Your task to perform on an android device: turn on the 12-hour format for clock Image 0: 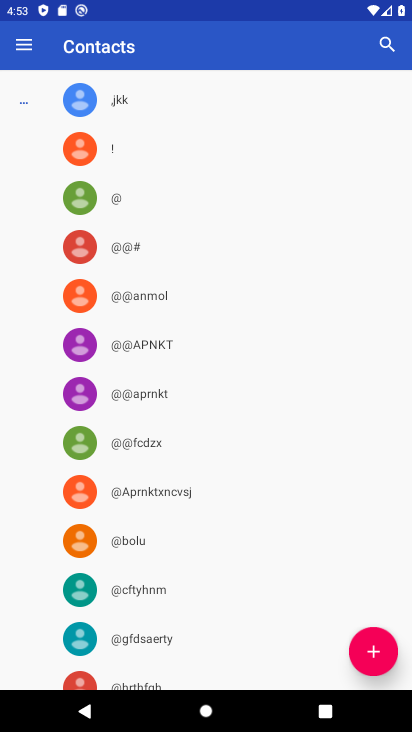
Step 0: press home button
Your task to perform on an android device: turn on the 12-hour format for clock Image 1: 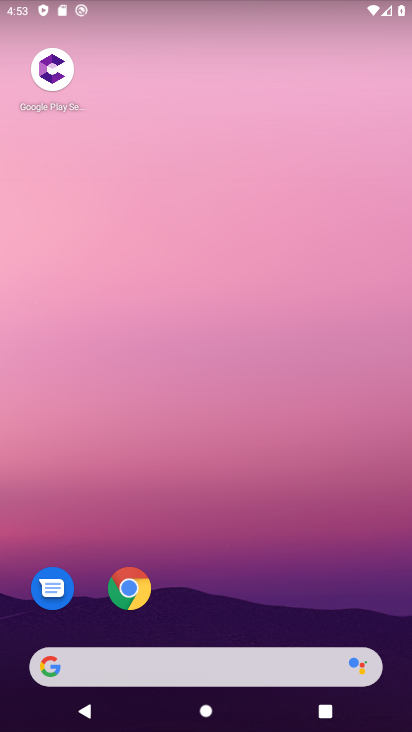
Step 1: drag from (261, 622) to (191, 20)
Your task to perform on an android device: turn on the 12-hour format for clock Image 2: 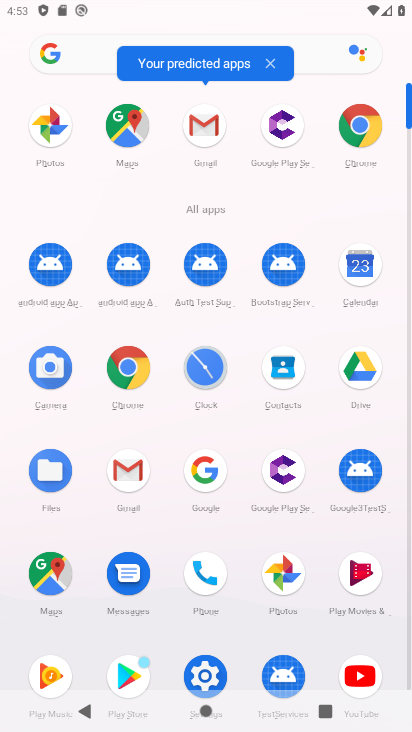
Step 2: click (221, 374)
Your task to perform on an android device: turn on the 12-hour format for clock Image 3: 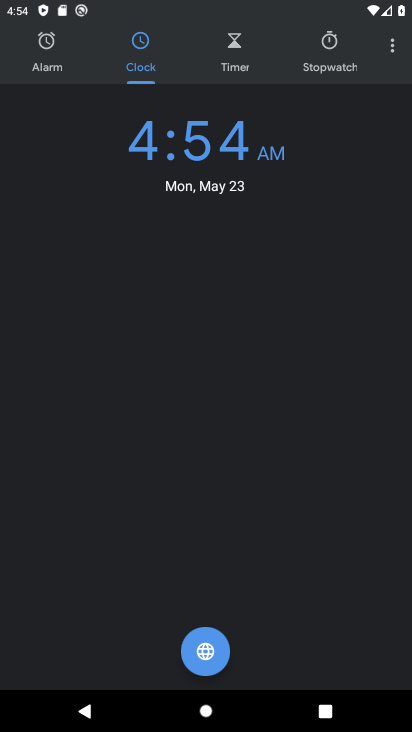
Step 3: click (393, 36)
Your task to perform on an android device: turn on the 12-hour format for clock Image 4: 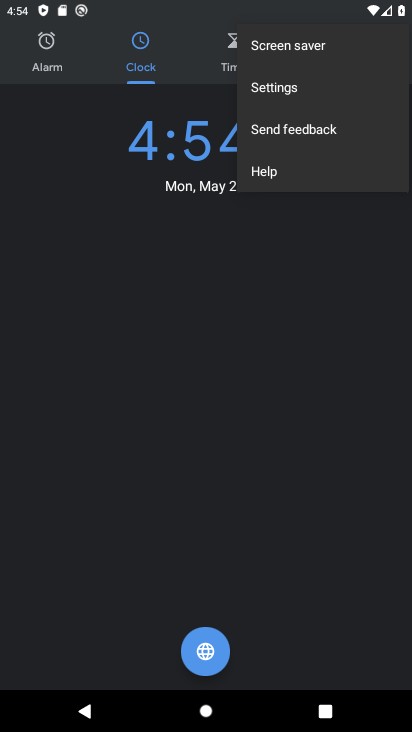
Step 4: click (321, 98)
Your task to perform on an android device: turn on the 12-hour format for clock Image 5: 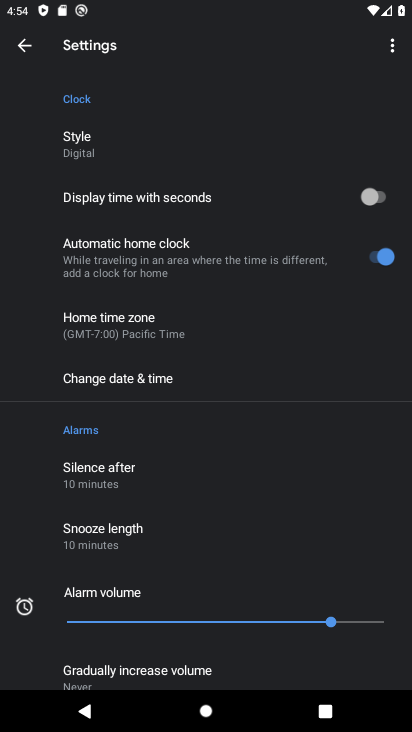
Step 5: click (241, 389)
Your task to perform on an android device: turn on the 12-hour format for clock Image 6: 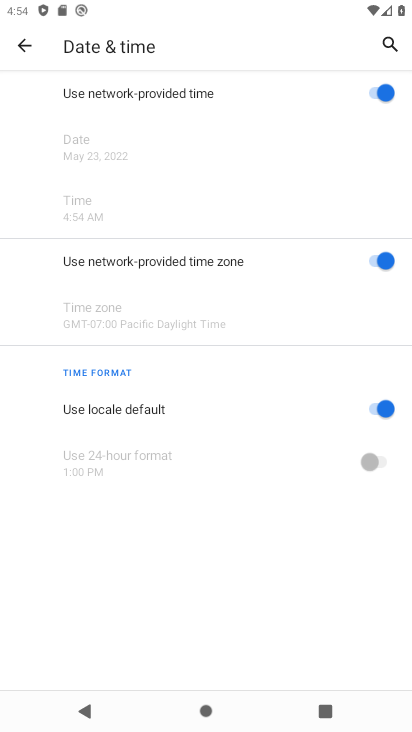
Step 6: task complete